Your task to perform on an android device: Do I have any events tomorrow? Image 0: 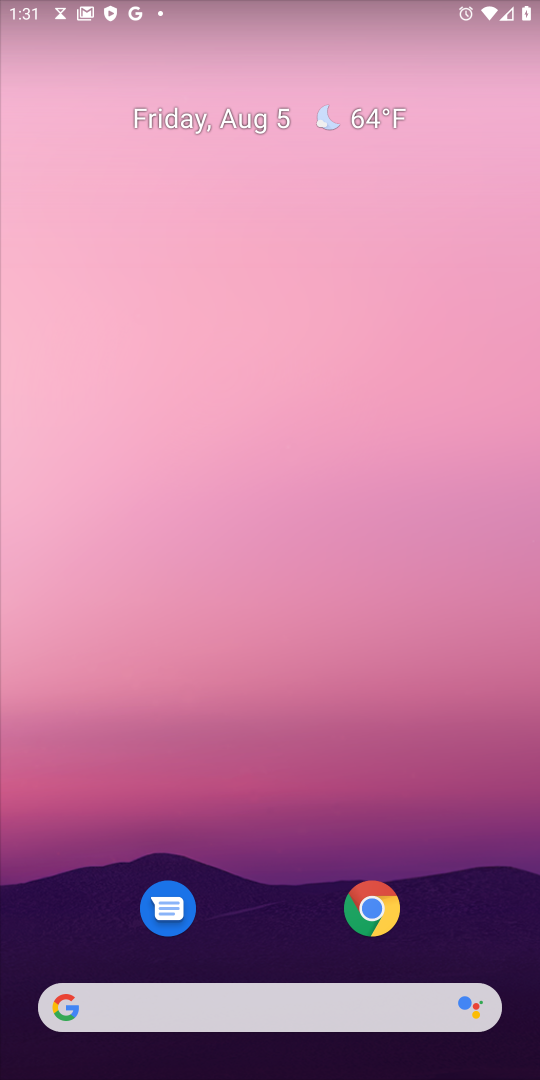
Step 0: press home button
Your task to perform on an android device: Do I have any events tomorrow? Image 1: 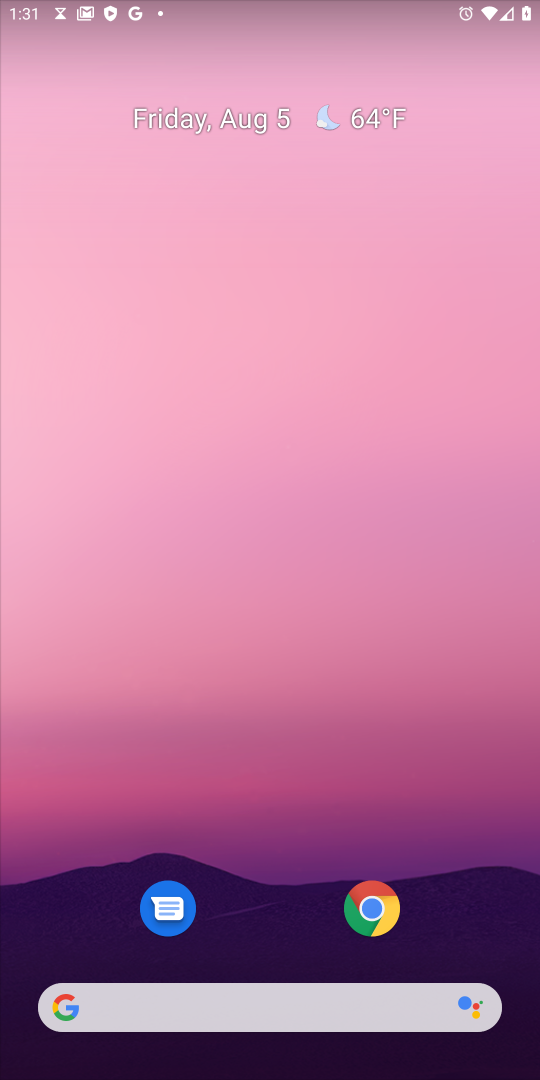
Step 1: drag from (358, 328) to (263, 187)
Your task to perform on an android device: Do I have any events tomorrow? Image 2: 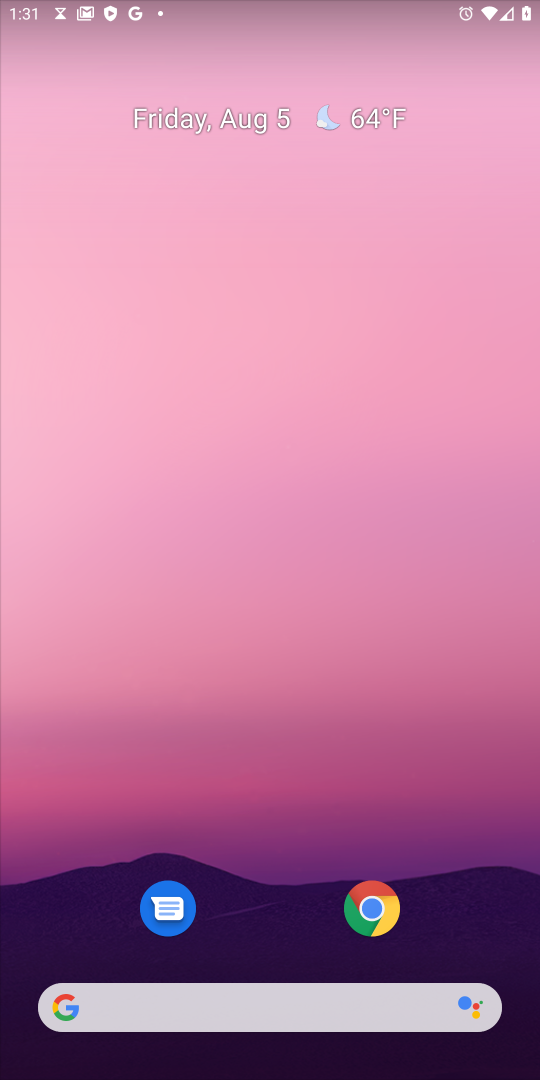
Step 2: drag from (337, 923) to (437, 0)
Your task to perform on an android device: Do I have any events tomorrow? Image 3: 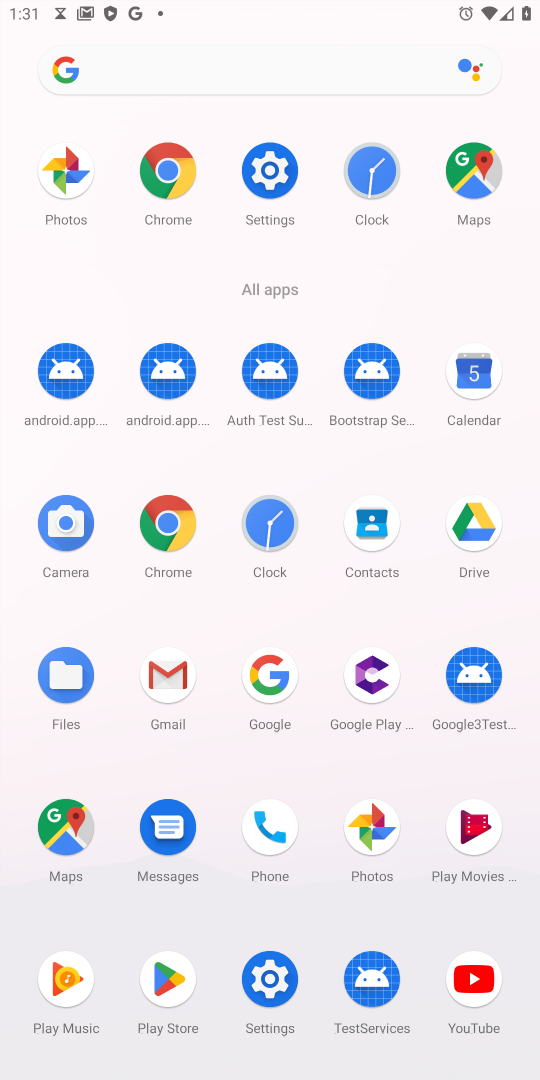
Step 3: click (491, 378)
Your task to perform on an android device: Do I have any events tomorrow? Image 4: 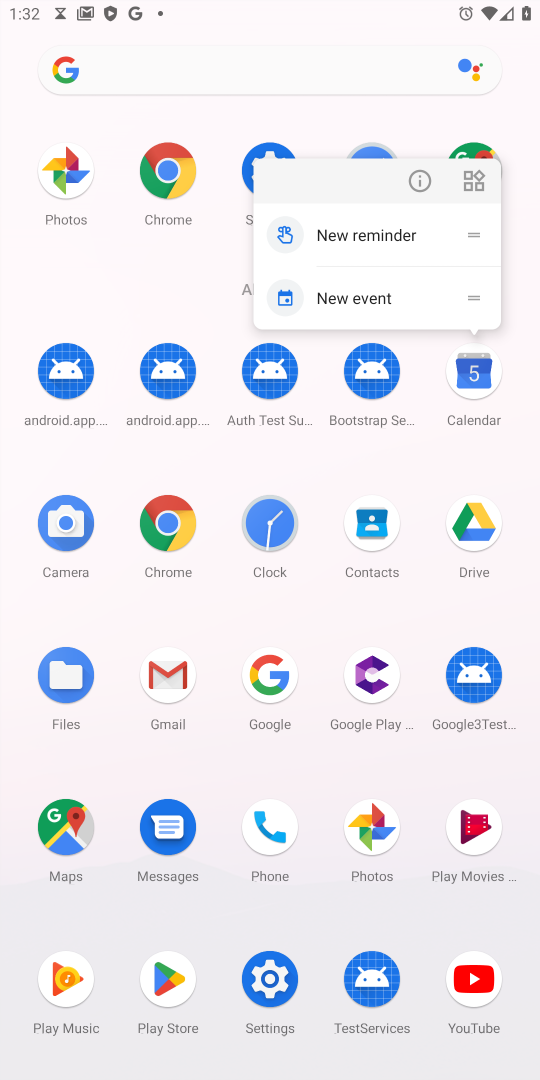
Step 4: click (491, 378)
Your task to perform on an android device: Do I have any events tomorrow? Image 5: 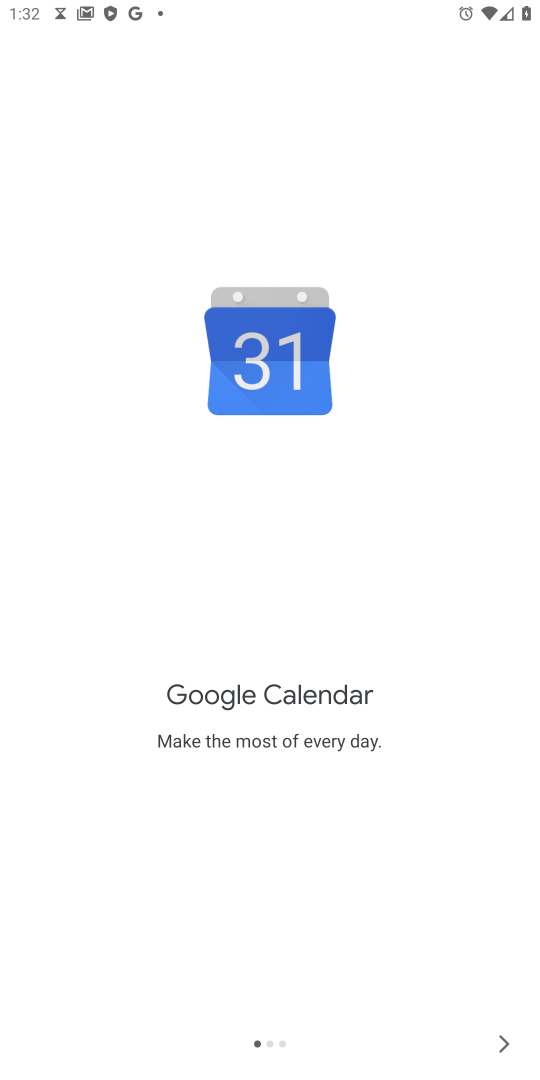
Step 5: click (502, 1042)
Your task to perform on an android device: Do I have any events tomorrow? Image 6: 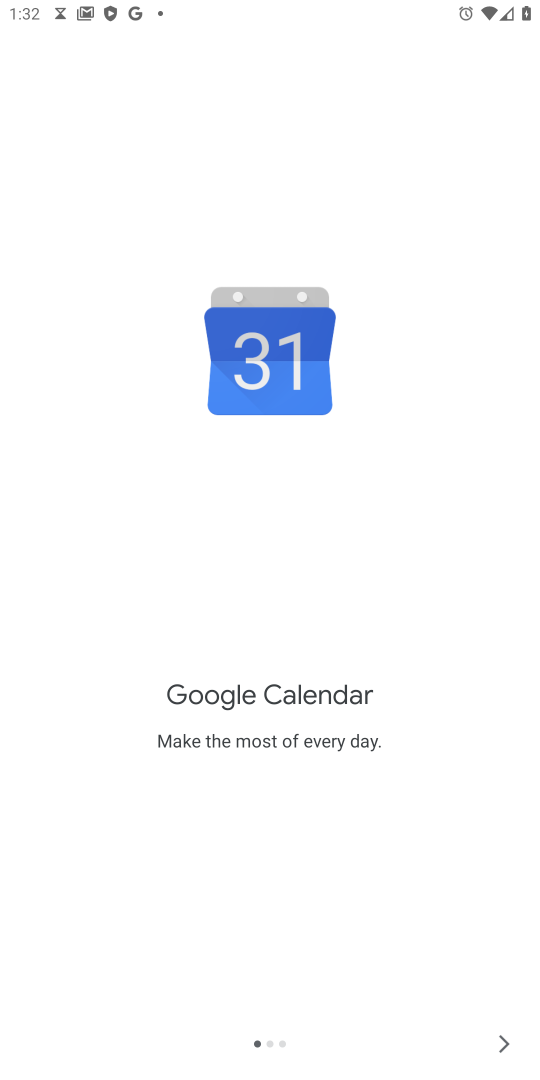
Step 6: click (502, 1042)
Your task to perform on an android device: Do I have any events tomorrow? Image 7: 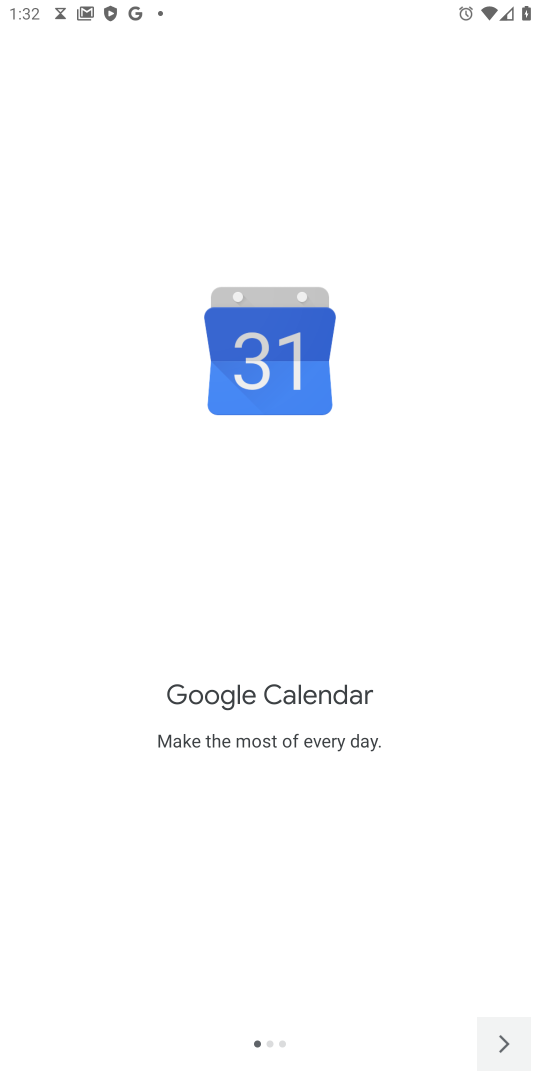
Step 7: click (502, 1042)
Your task to perform on an android device: Do I have any events tomorrow? Image 8: 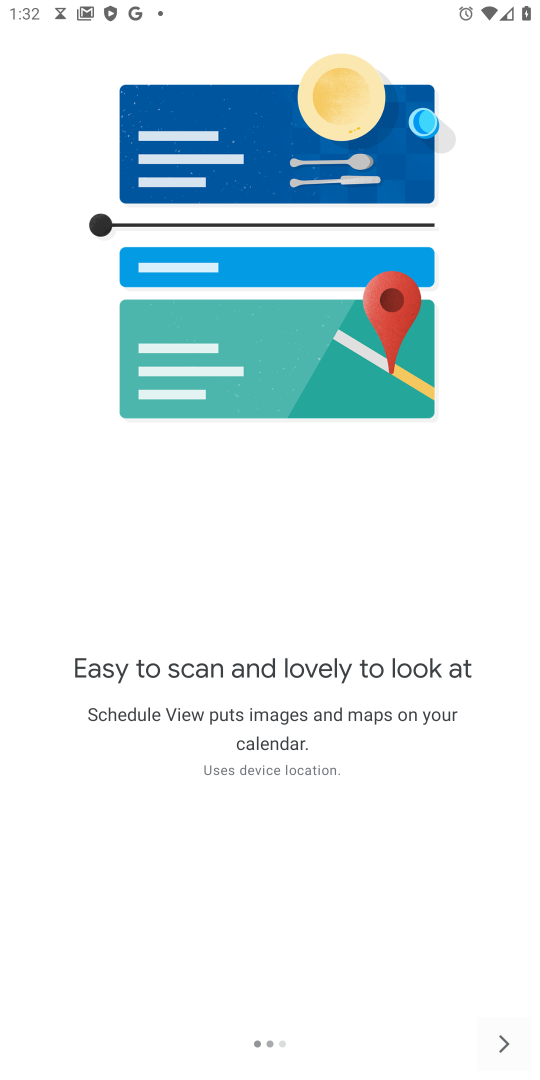
Step 8: click (502, 1042)
Your task to perform on an android device: Do I have any events tomorrow? Image 9: 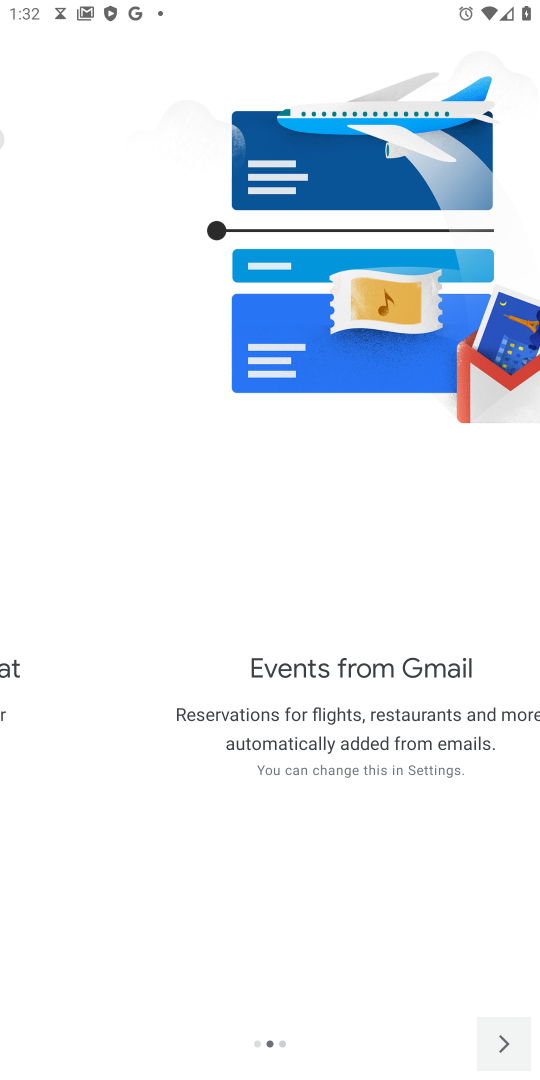
Step 9: click (428, 1021)
Your task to perform on an android device: Do I have any events tomorrow? Image 10: 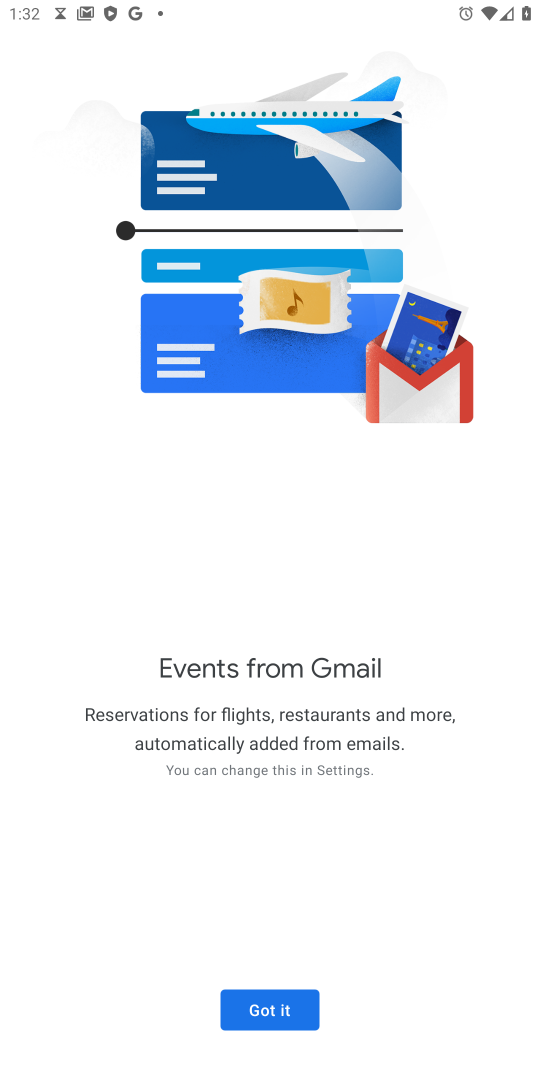
Step 10: click (257, 1029)
Your task to perform on an android device: Do I have any events tomorrow? Image 11: 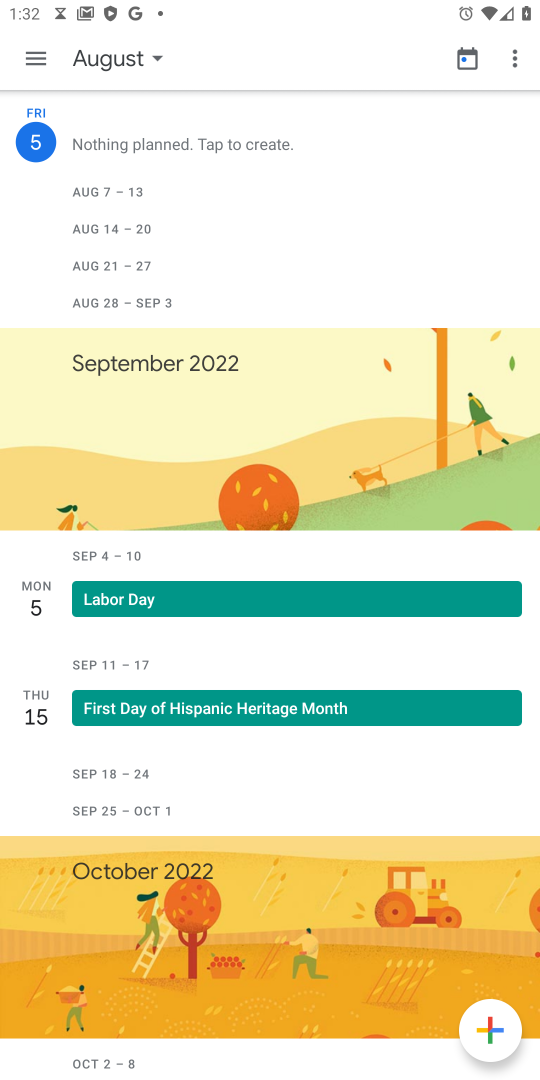
Step 11: click (144, 62)
Your task to perform on an android device: Do I have any events tomorrow? Image 12: 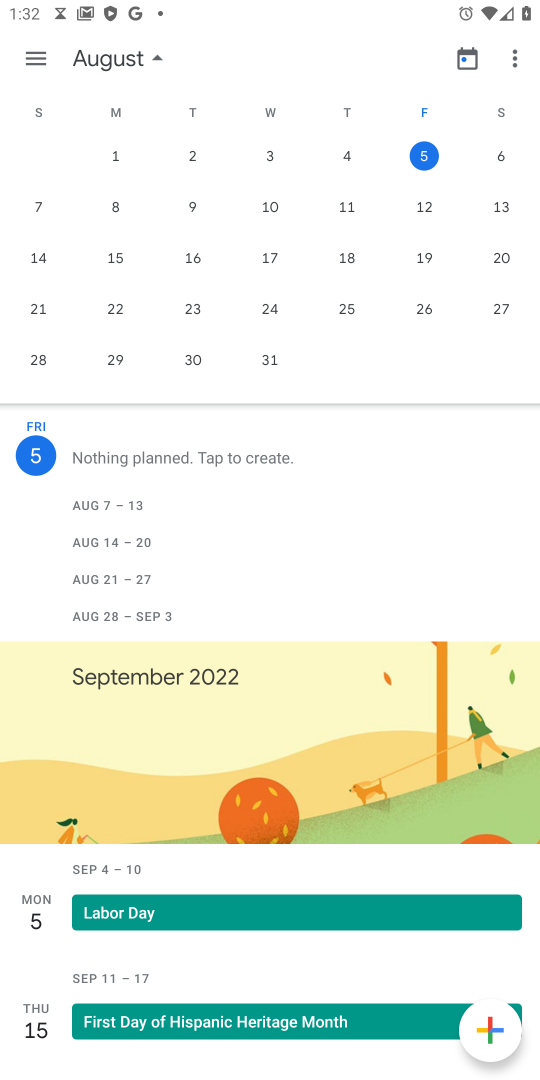
Step 12: click (502, 155)
Your task to perform on an android device: Do I have any events tomorrow? Image 13: 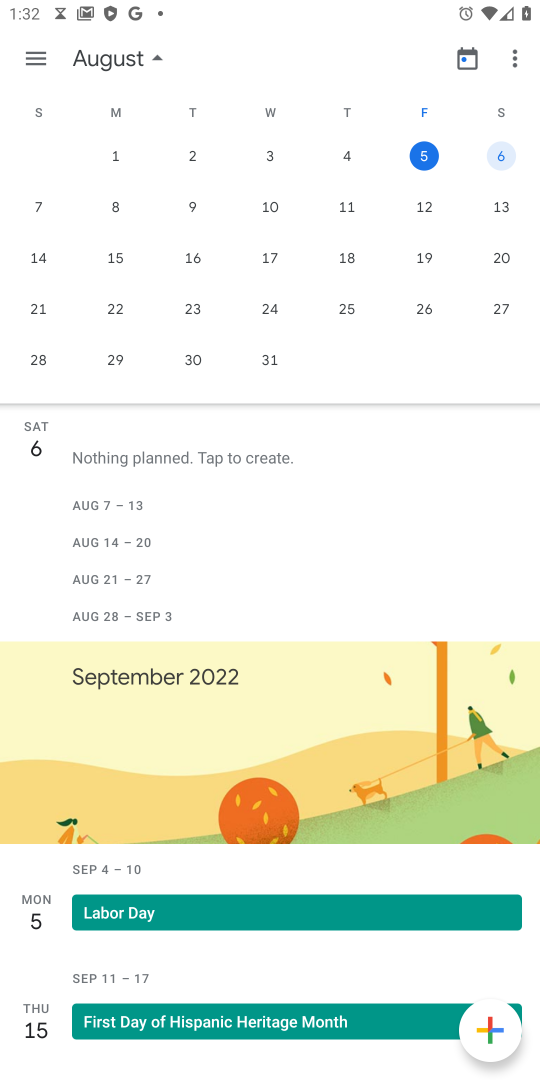
Step 13: task complete